Your task to perform on an android device: turn off wifi Image 0: 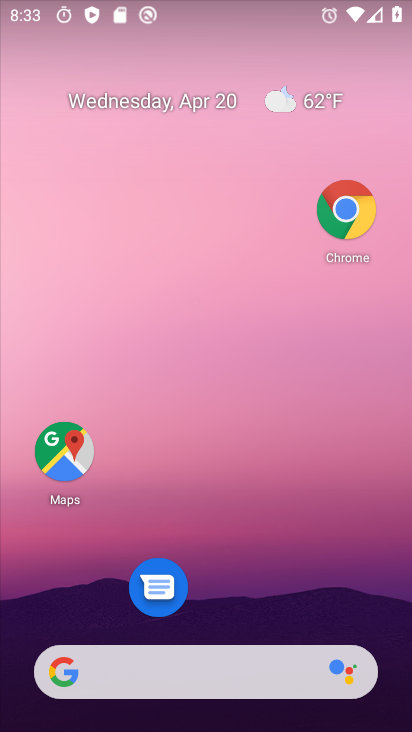
Step 0: drag from (217, 12) to (141, 534)
Your task to perform on an android device: turn off wifi Image 1: 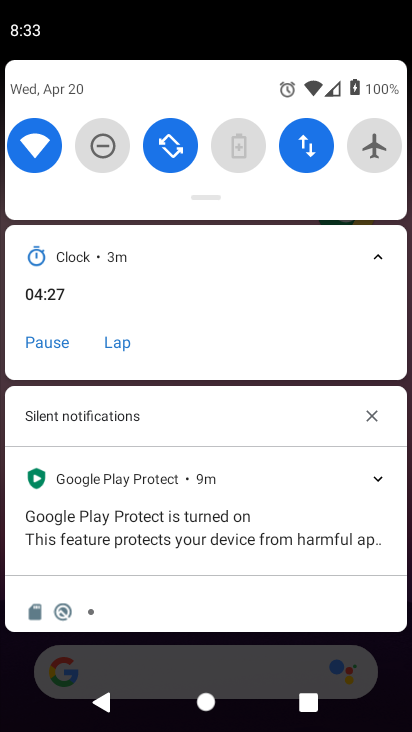
Step 1: click (34, 138)
Your task to perform on an android device: turn off wifi Image 2: 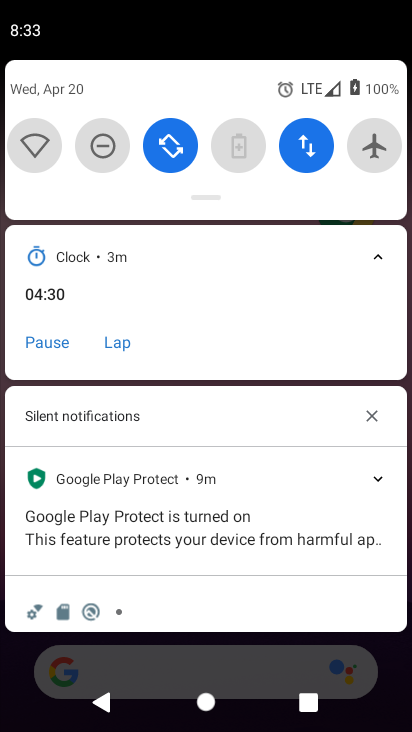
Step 2: task complete